Your task to perform on an android device: turn on translation in the chrome app Image 0: 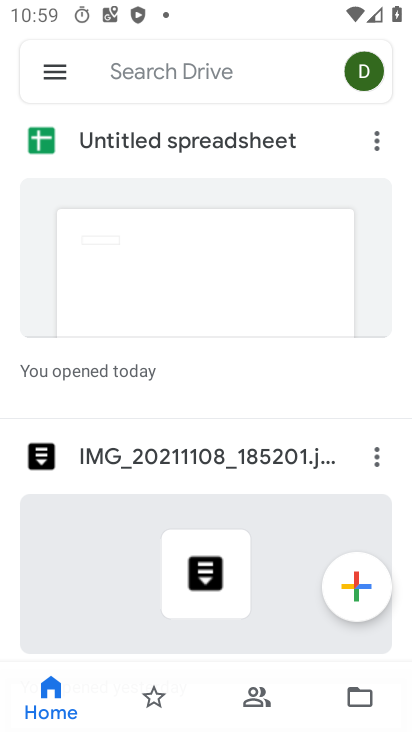
Step 0: press back button
Your task to perform on an android device: turn on translation in the chrome app Image 1: 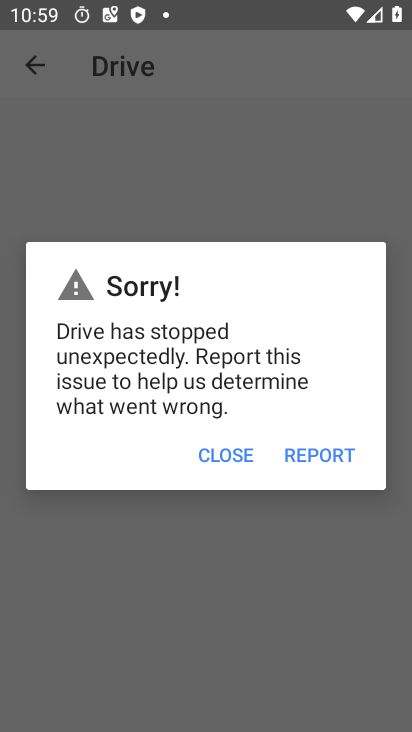
Step 1: press home button
Your task to perform on an android device: turn on translation in the chrome app Image 2: 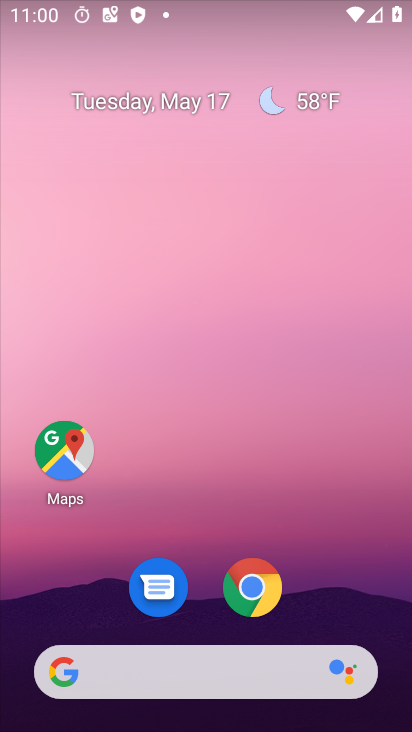
Step 2: click (256, 587)
Your task to perform on an android device: turn on translation in the chrome app Image 3: 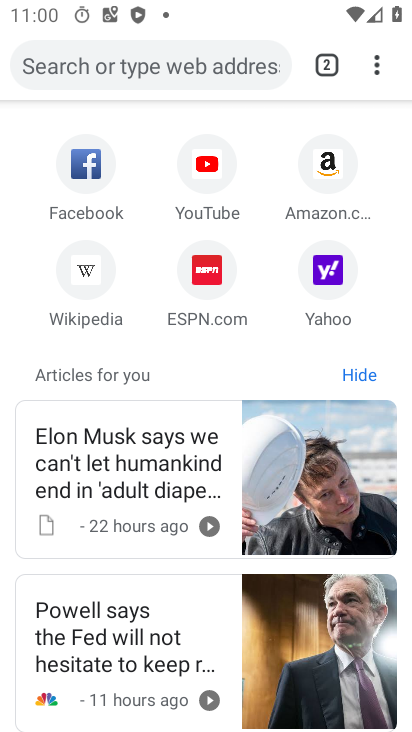
Step 3: click (376, 65)
Your task to perform on an android device: turn on translation in the chrome app Image 4: 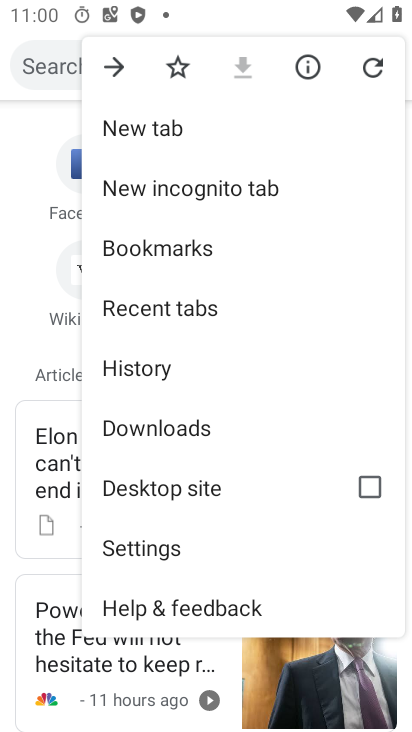
Step 4: drag from (228, 442) to (251, 364)
Your task to perform on an android device: turn on translation in the chrome app Image 5: 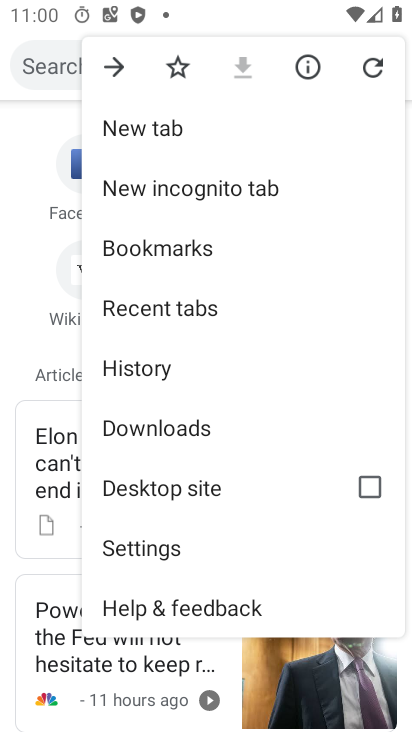
Step 5: click (128, 548)
Your task to perform on an android device: turn on translation in the chrome app Image 6: 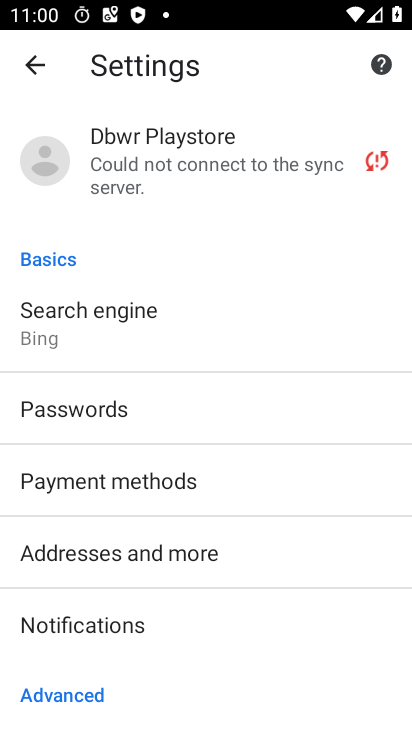
Step 6: drag from (146, 610) to (168, 505)
Your task to perform on an android device: turn on translation in the chrome app Image 7: 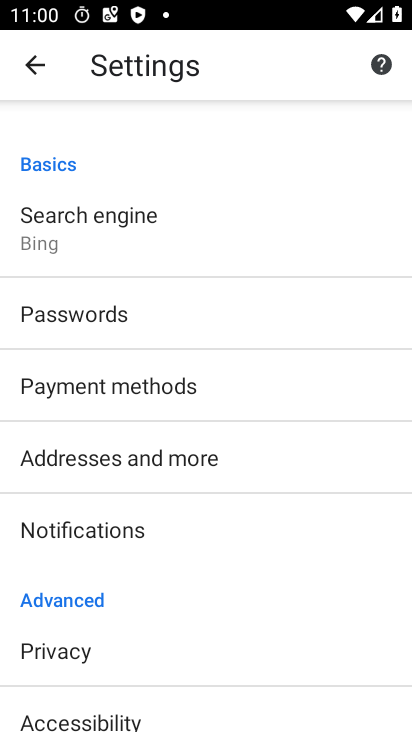
Step 7: drag from (139, 584) to (174, 500)
Your task to perform on an android device: turn on translation in the chrome app Image 8: 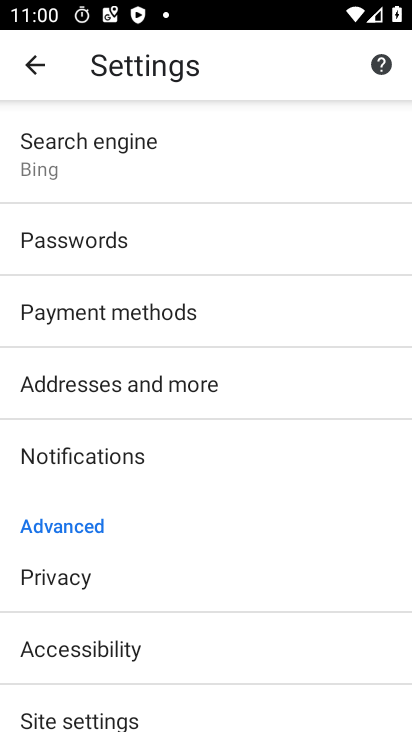
Step 8: drag from (141, 569) to (181, 478)
Your task to perform on an android device: turn on translation in the chrome app Image 9: 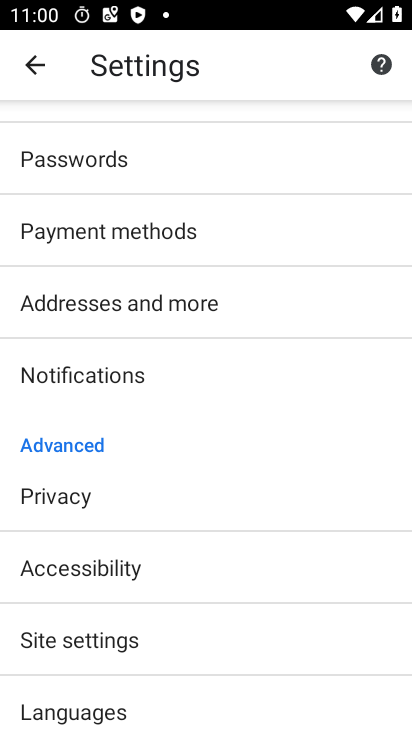
Step 9: drag from (147, 629) to (194, 520)
Your task to perform on an android device: turn on translation in the chrome app Image 10: 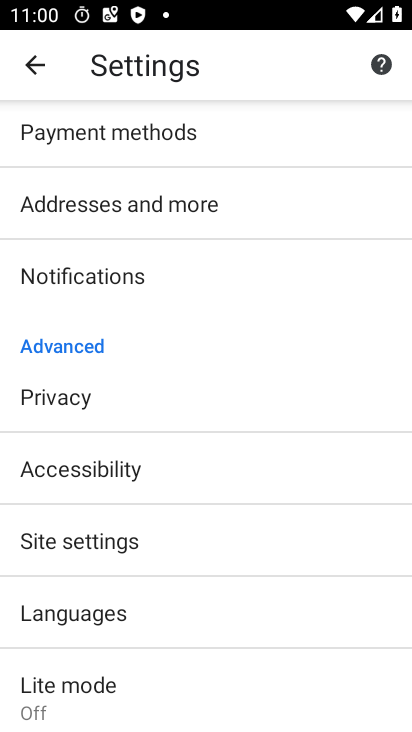
Step 10: click (82, 616)
Your task to perform on an android device: turn on translation in the chrome app Image 11: 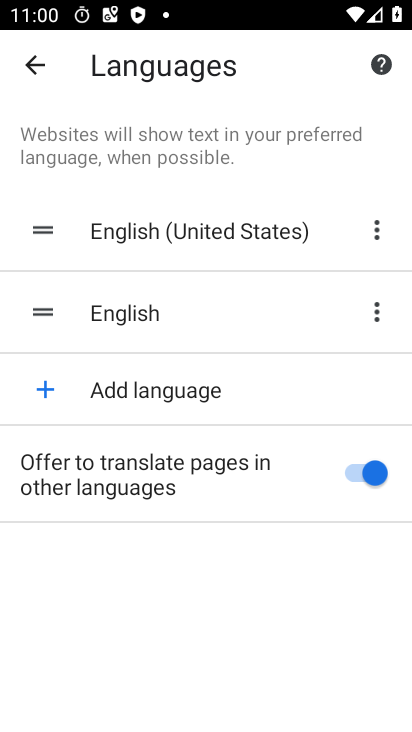
Step 11: task complete